Your task to perform on an android device: Open the web browser Image 0: 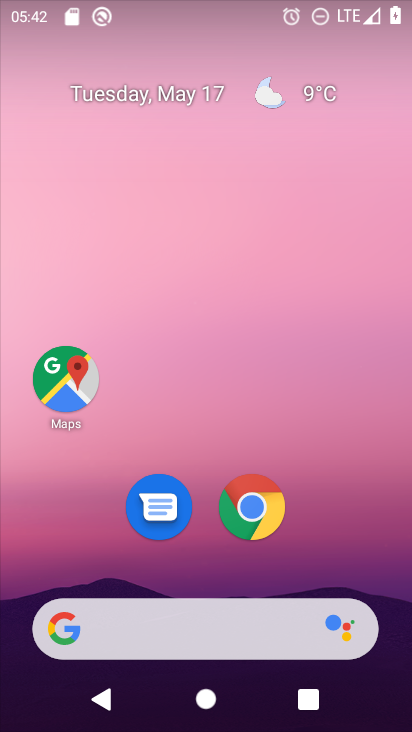
Step 0: click (255, 509)
Your task to perform on an android device: Open the web browser Image 1: 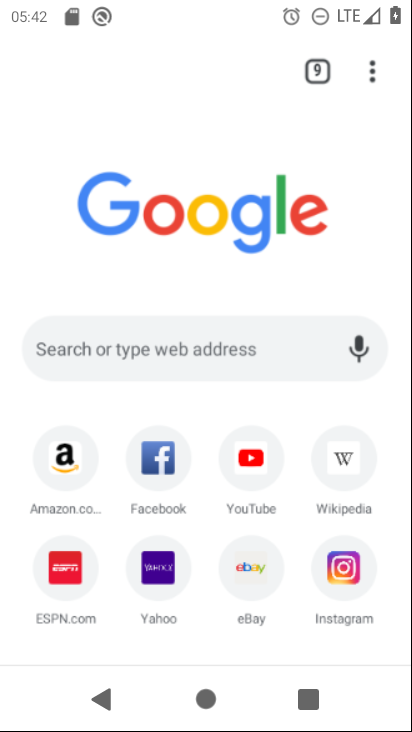
Step 1: task complete